Your task to perform on an android device: turn off improve location accuracy Image 0: 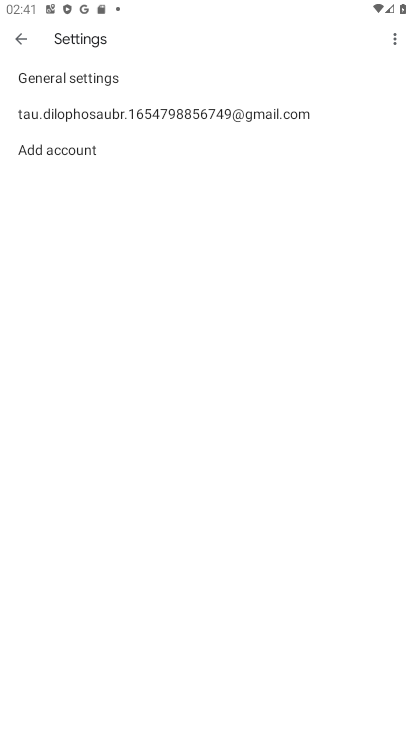
Step 0: press home button
Your task to perform on an android device: turn off improve location accuracy Image 1: 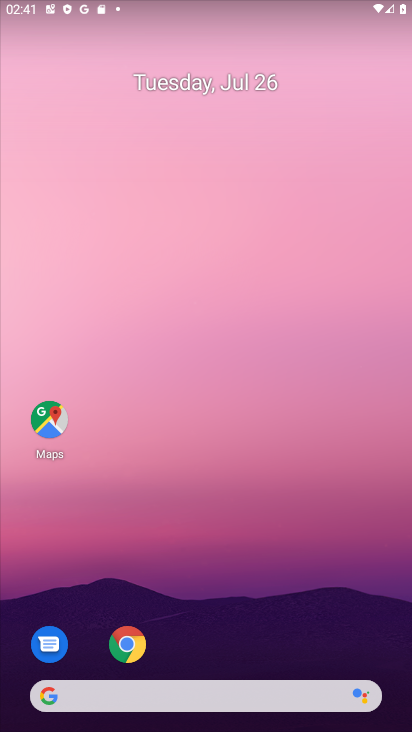
Step 1: drag from (190, 666) to (189, 173)
Your task to perform on an android device: turn off improve location accuracy Image 2: 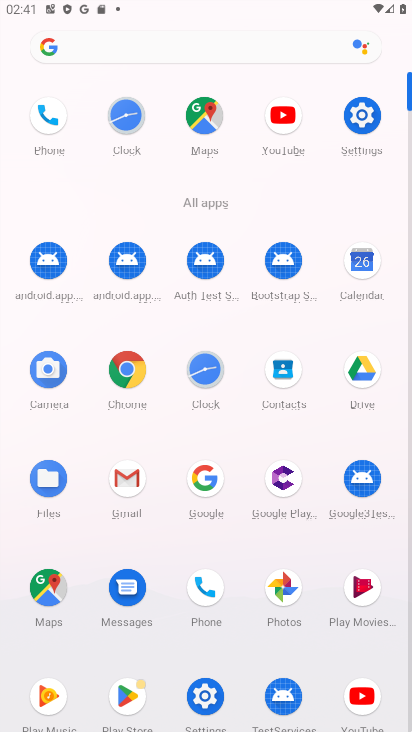
Step 2: click (342, 125)
Your task to perform on an android device: turn off improve location accuracy Image 3: 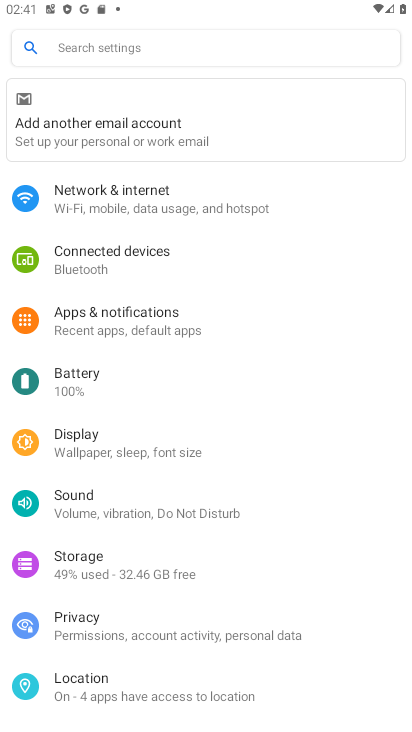
Step 3: drag from (188, 623) to (167, 290)
Your task to perform on an android device: turn off improve location accuracy Image 4: 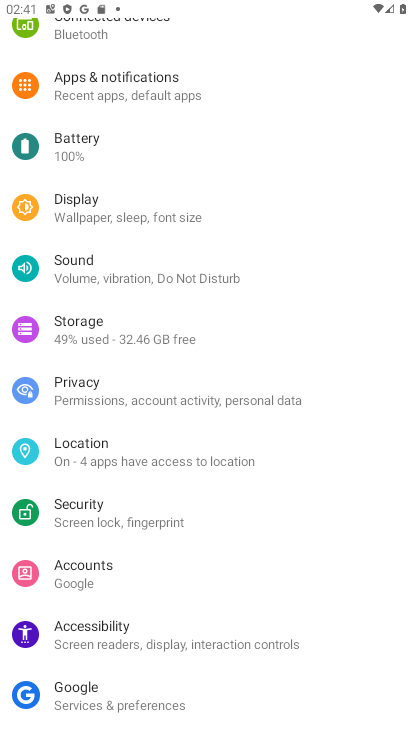
Step 4: click (114, 460)
Your task to perform on an android device: turn off improve location accuracy Image 5: 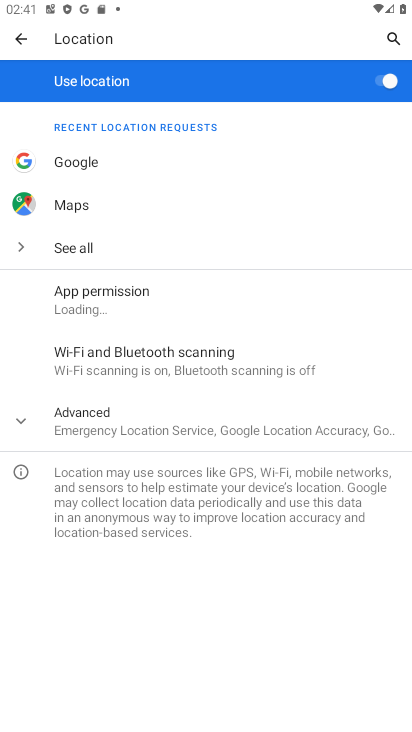
Step 5: click (115, 416)
Your task to perform on an android device: turn off improve location accuracy Image 6: 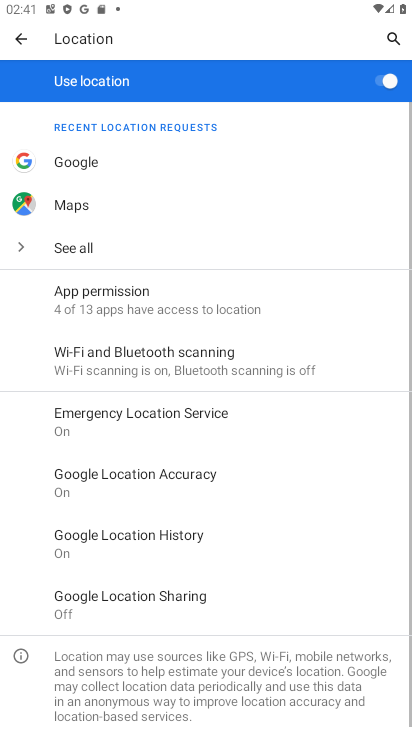
Step 6: click (133, 470)
Your task to perform on an android device: turn off improve location accuracy Image 7: 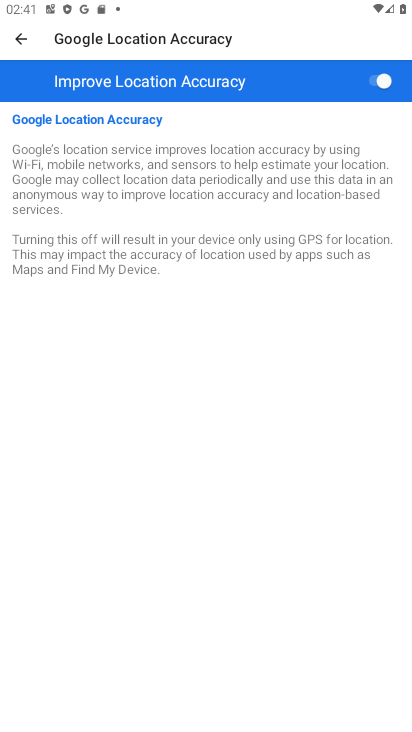
Step 7: click (372, 75)
Your task to perform on an android device: turn off improve location accuracy Image 8: 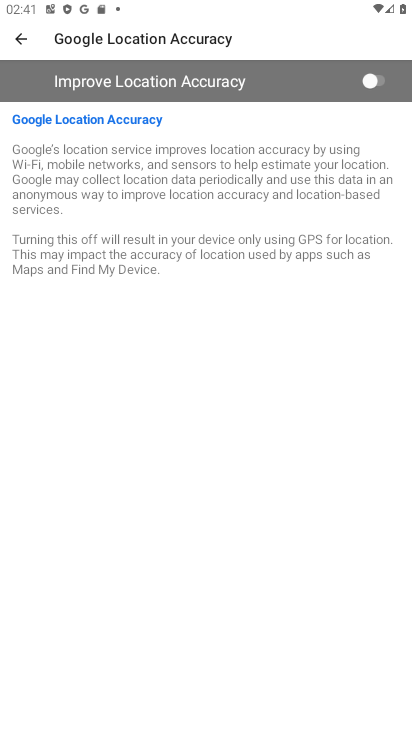
Step 8: task complete